Your task to perform on an android device: What's the price of the 2x4x8 boards at Home Depot? Image 0: 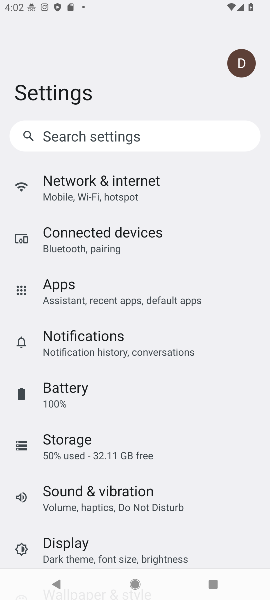
Step 0: press home button
Your task to perform on an android device: What's the price of the 2x4x8 boards at Home Depot? Image 1: 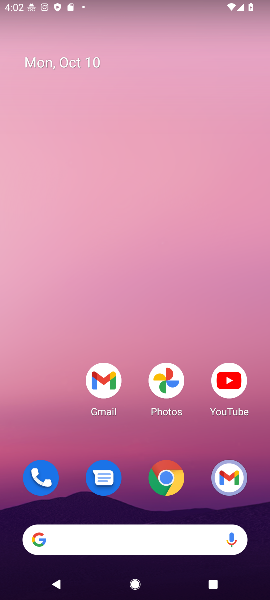
Step 1: click (176, 481)
Your task to perform on an android device: What's the price of the 2x4x8 boards at Home Depot? Image 2: 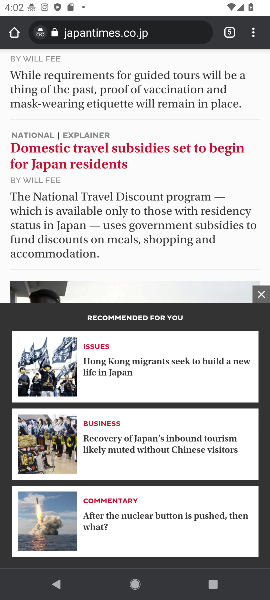
Step 2: click (107, 44)
Your task to perform on an android device: What's the price of the 2x4x8 boards at Home Depot? Image 3: 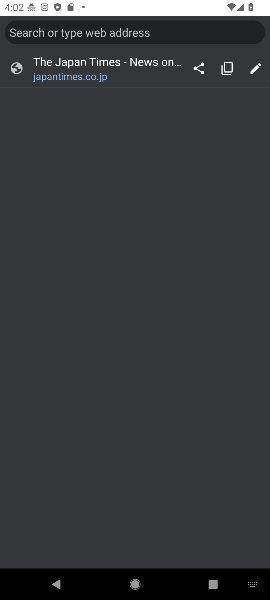
Step 3: type "What's the price of the 2x4x8 boards at Home Depot?"
Your task to perform on an android device: What's the price of the 2x4x8 boards at Home Depot? Image 4: 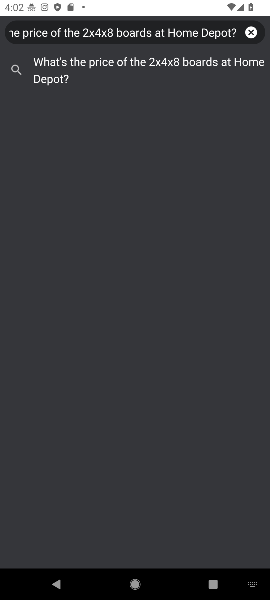
Step 4: click (126, 74)
Your task to perform on an android device: What's the price of the 2x4x8 boards at Home Depot? Image 5: 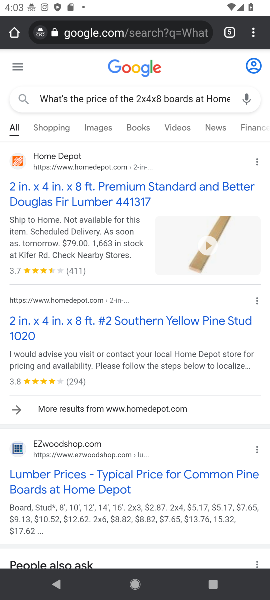
Step 5: click (74, 475)
Your task to perform on an android device: What's the price of the 2x4x8 boards at Home Depot? Image 6: 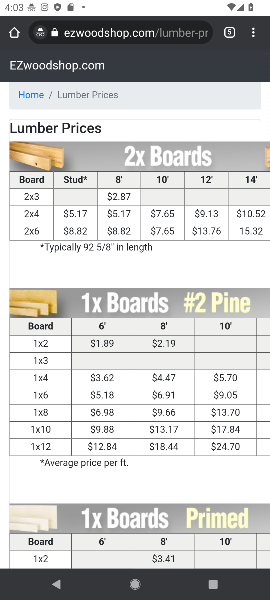
Step 6: task complete